Your task to perform on an android device: Go to accessibility settings Image 0: 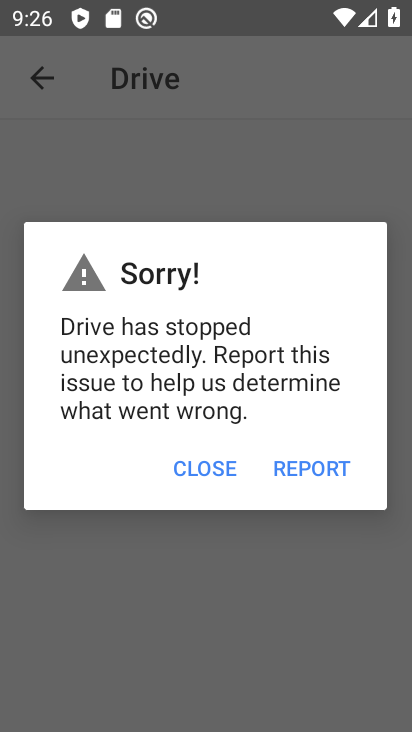
Step 0: press home button
Your task to perform on an android device: Go to accessibility settings Image 1: 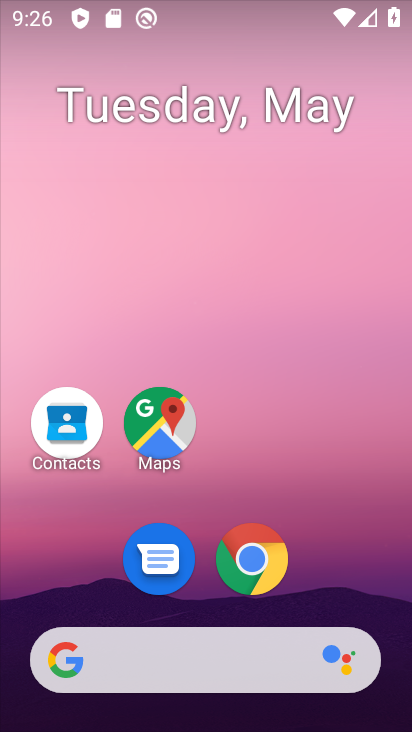
Step 1: drag from (354, 554) to (256, 63)
Your task to perform on an android device: Go to accessibility settings Image 2: 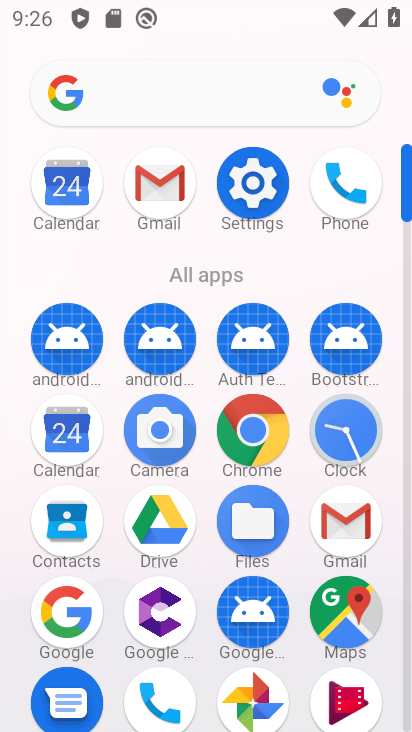
Step 2: click (261, 219)
Your task to perform on an android device: Go to accessibility settings Image 3: 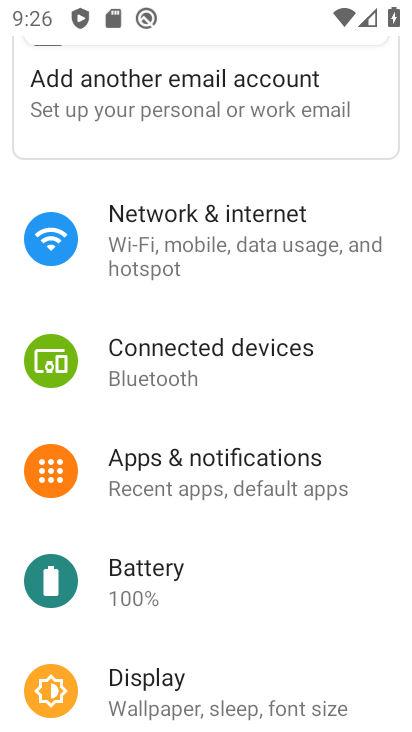
Step 3: click (259, 232)
Your task to perform on an android device: Go to accessibility settings Image 4: 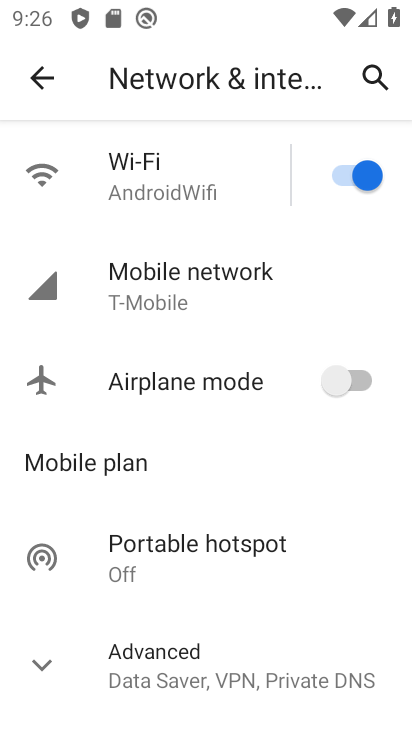
Step 4: click (62, 95)
Your task to perform on an android device: Go to accessibility settings Image 5: 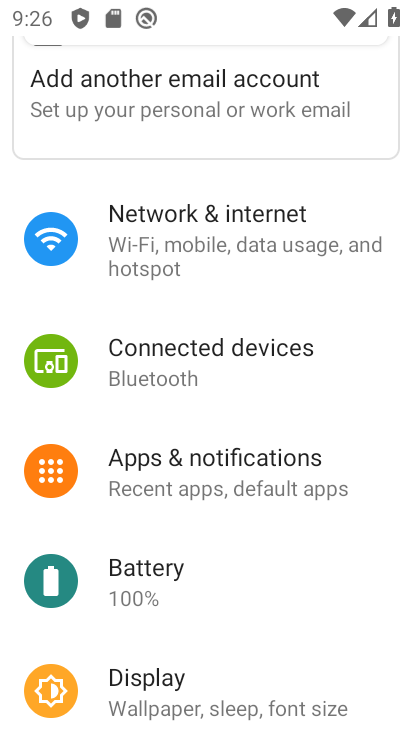
Step 5: drag from (258, 700) to (252, 16)
Your task to perform on an android device: Go to accessibility settings Image 6: 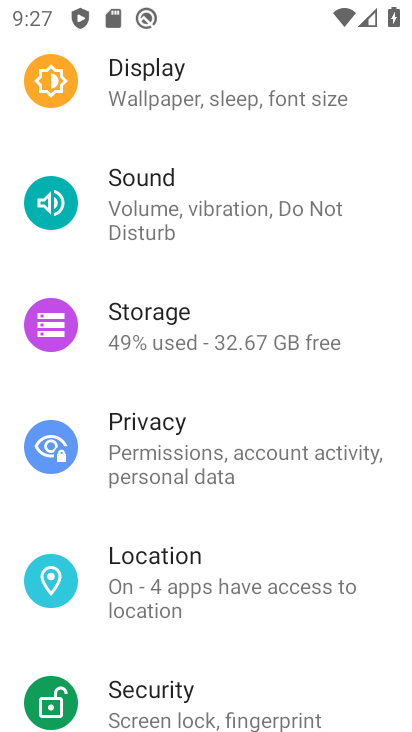
Step 6: drag from (224, 649) to (195, 352)
Your task to perform on an android device: Go to accessibility settings Image 7: 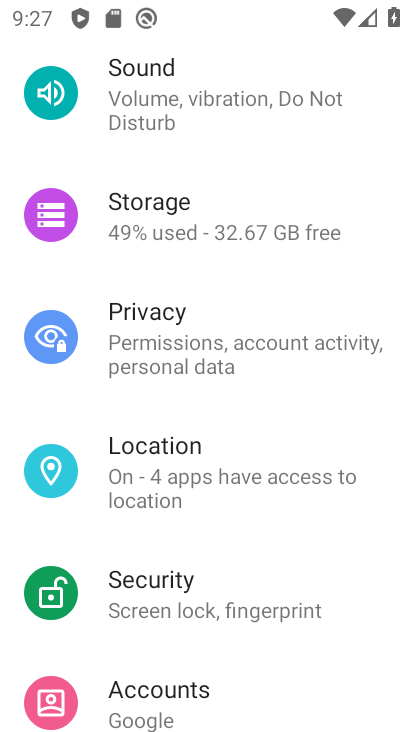
Step 7: drag from (212, 632) to (212, 535)
Your task to perform on an android device: Go to accessibility settings Image 8: 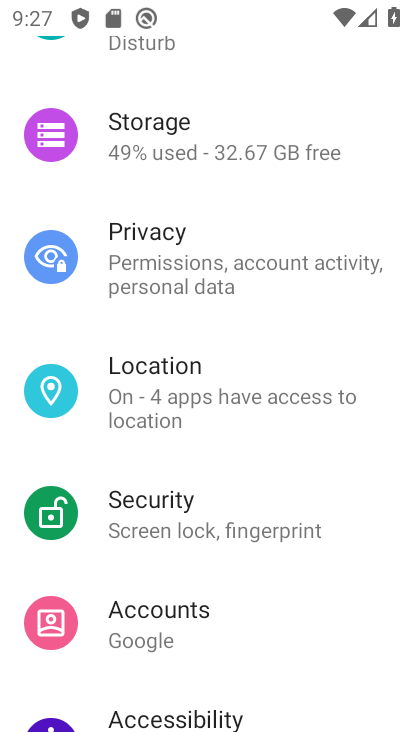
Step 8: click (196, 701)
Your task to perform on an android device: Go to accessibility settings Image 9: 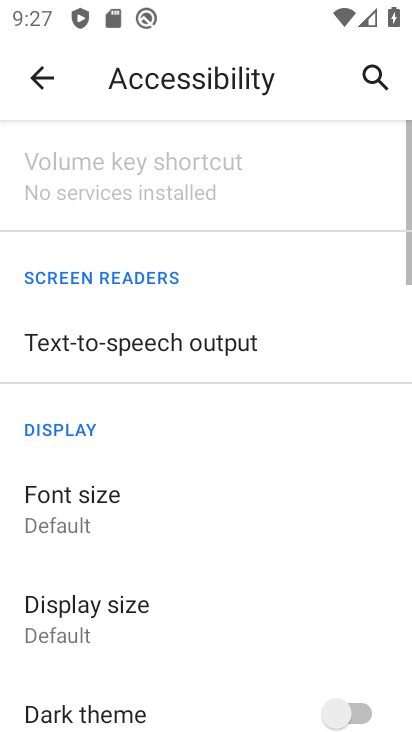
Step 9: task complete